Your task to perform on an android device: Go to battery settings Image 0: 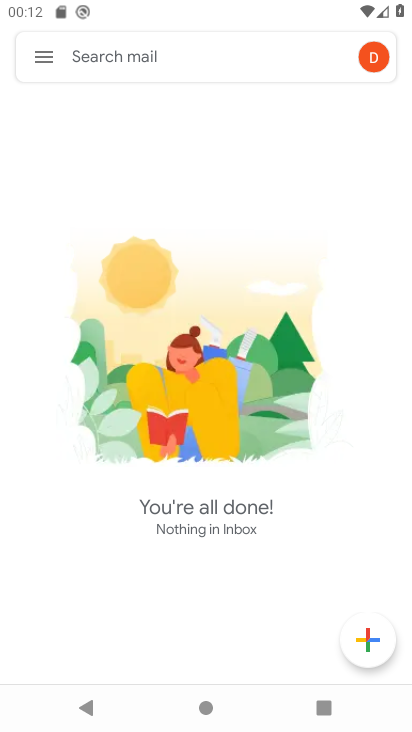
Step 0: drag from (230, 595) to (298, 314)
Your task to perform on an android device: Go to battery settings Image 1: 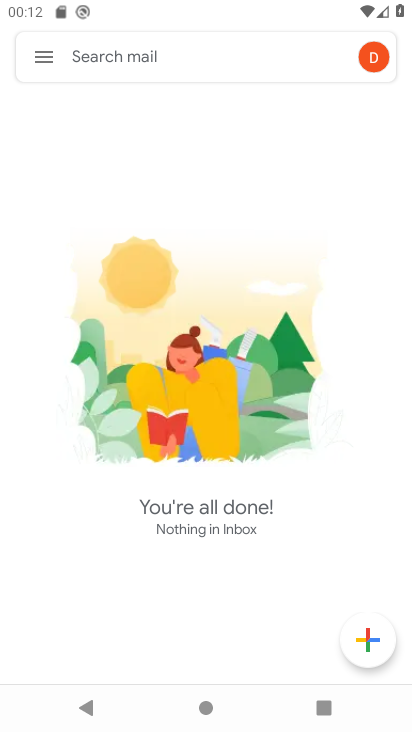
Step 1: press home button
Your task to perform on an android device: Go to battery settings Image 2: 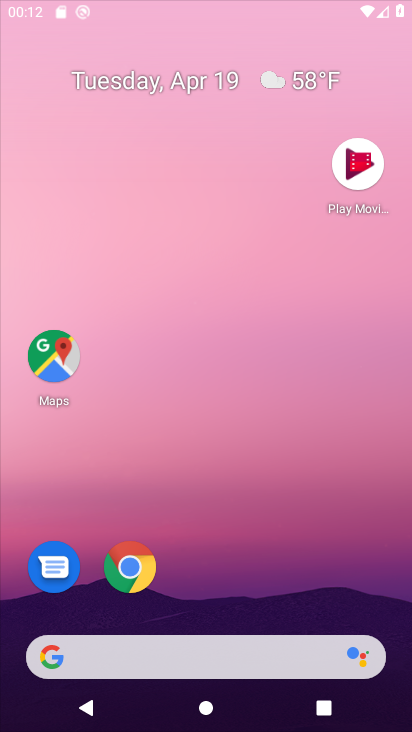
Step 2: drag from (205, 577) to (194, 95)
Your task to perform on an android device: Go to battery settings Image 3: 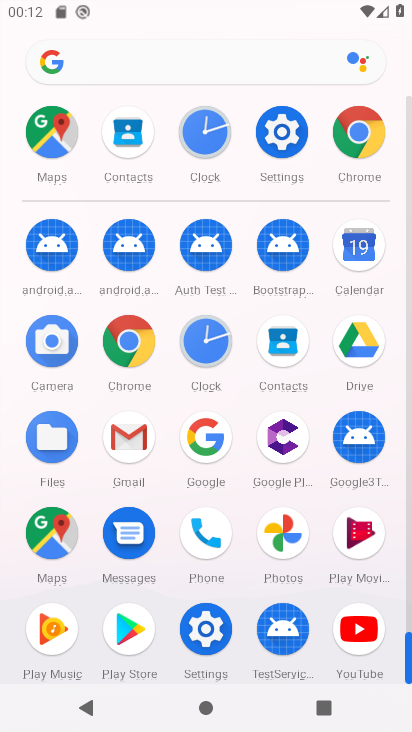
Step 3: click (203, 634)
Your task to perform on an android device: Go to battery settings Image 4: 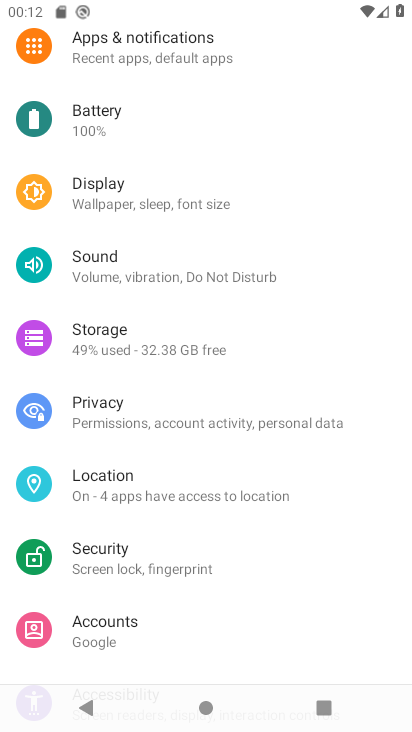
Step 4: drag from (168, 218) to (240, 593)
Your task to perform on an android device: Go to battery settings Image 5: 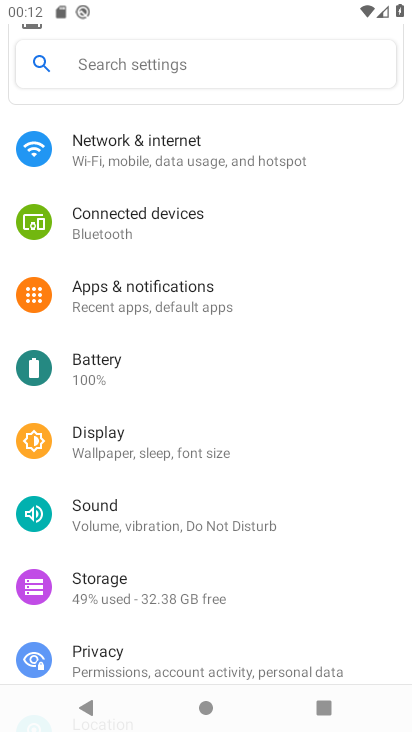
Step 5: click (131, 373)
Your task to perform on an android device: Go to battery settings Image 6: 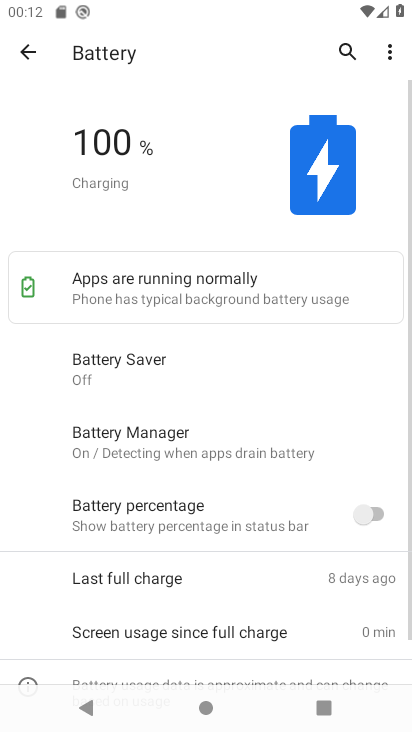
Step 6: drag from (193, 549) to (200, 294)
Your task to perform on an android device: Go to battery settings Image 7: 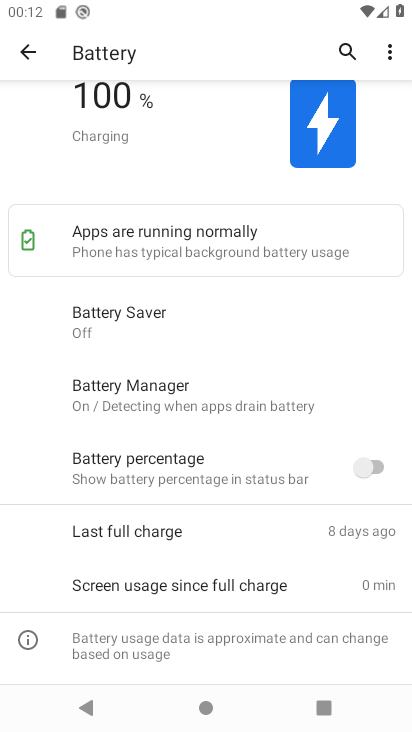
Step 7: drag from (289, 216) to (253, 711)
Your task to perform on an android device: Go to battery settings Image 8: 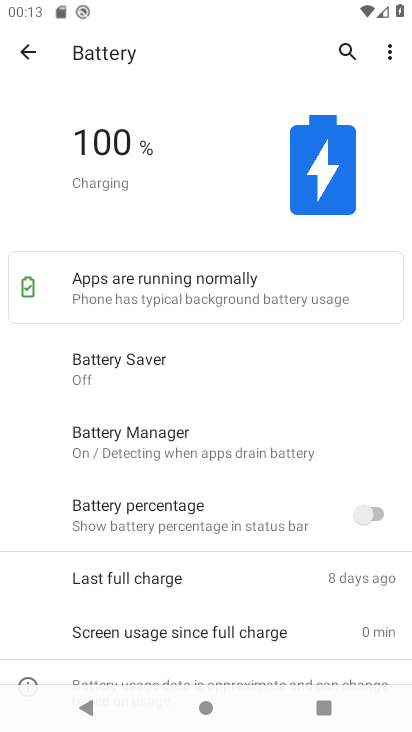
Step 8: click (401, 41)
Your task to perform on an android device: Go to battery settings Image 9: 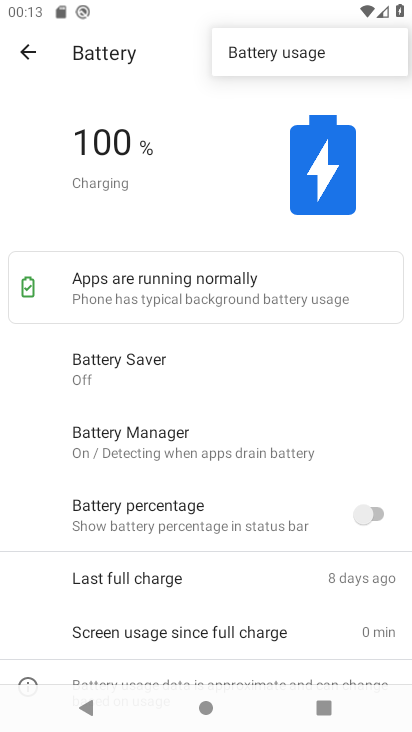
Step 9: click (334, 44)
Your task to perform on an android device: Go to battery settings Image 10: 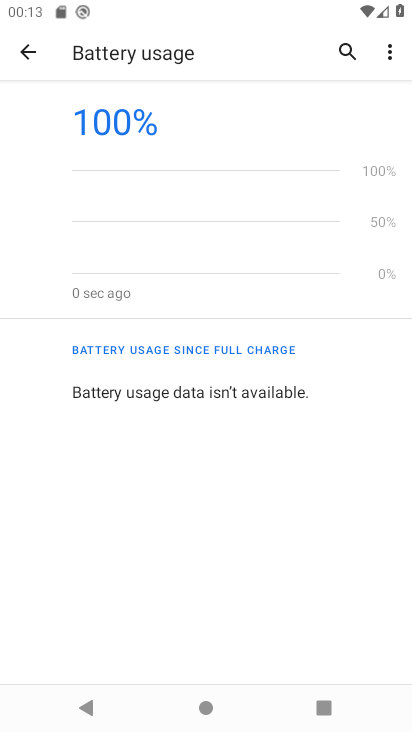
Step 10: click (367, 126)
Your task to perform on an android device: Go to battery settings Image 11: 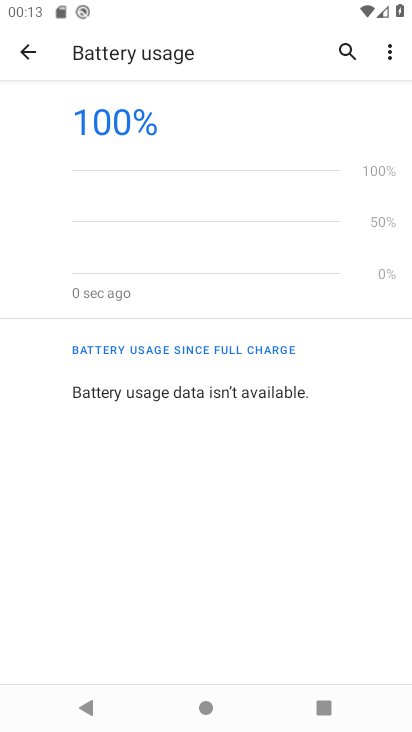
Step 11: task complete